Your task to perform on an android device: open app "VLC for Android" Image 0: 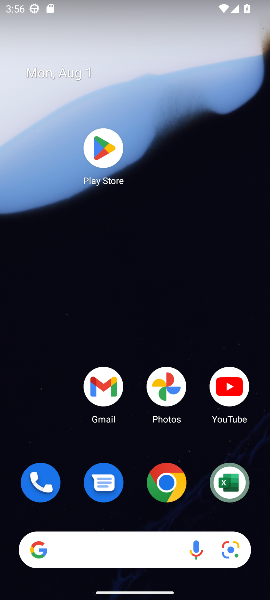
Step 0: press home button
Your task to perform on an android device: open app "VLC for Android" Image 1: 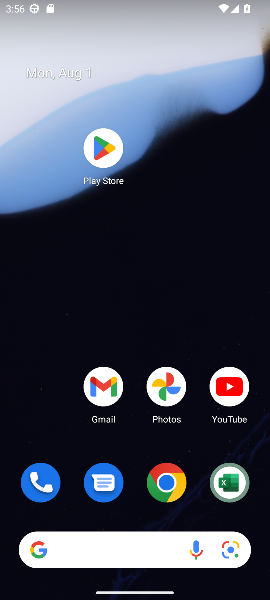
Step 1: click (97, 148)
Your task to perform on an android device: open app "VLC for Android" Image 2: 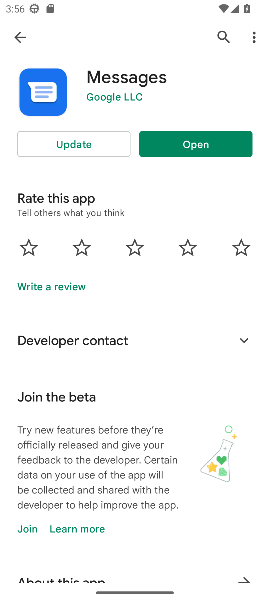
Step 2: click (219, 35)
Your task to perform on an android device: open app "VLC for Android" Image 3: 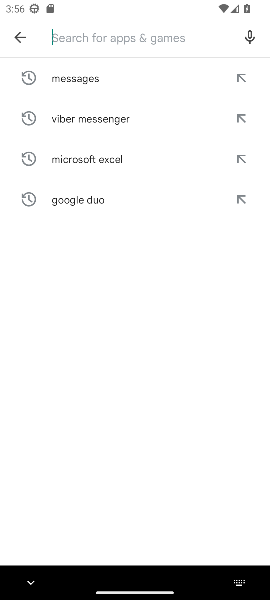
Step 3: type "VLC for Android"
Your task to perform on an android device: open app "VLC for Android" Image 4: 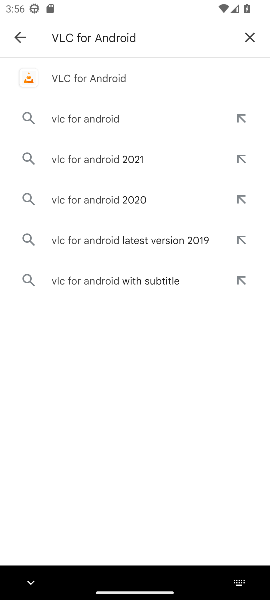
Step 4: click (101, 80)
Your task to perform on an android device: open app "VLC for Android" Image 5: 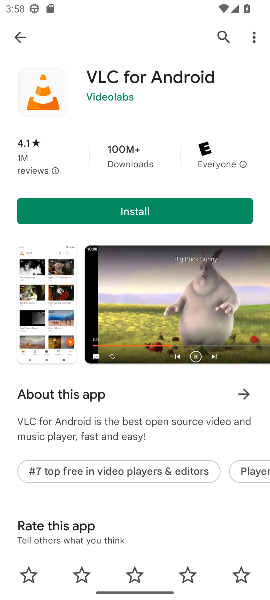
Step 5: task complete